Your task to perform on an android device: Toggle the flashlight Image 0: 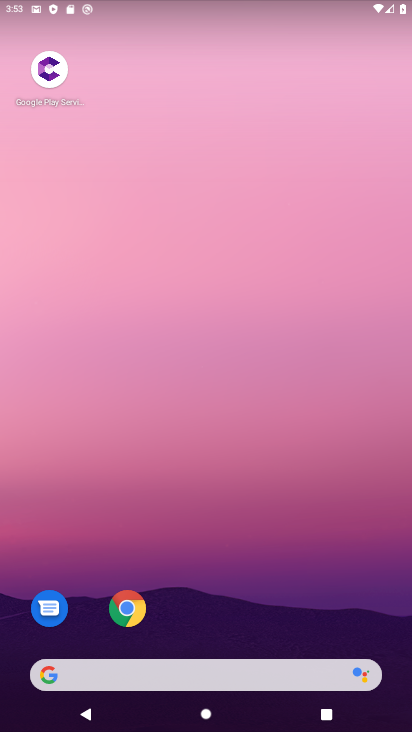
Step 0: drag from (265, 652) to (273, 148)
Your task to perform on an android device: Toggle the flashlight Image 1: 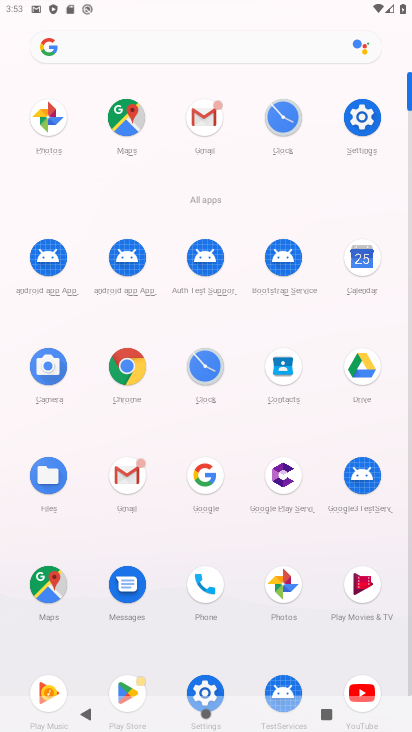
Step 1: click (342, 140)
Your task to perform on an android device: Toggle the flashlight Image 2: 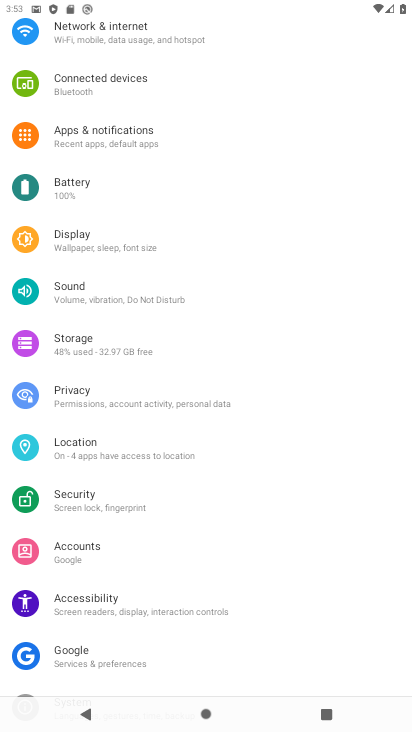
Step 2: task complete